Your task to perform on an android device: Go to notification settings Image 0: 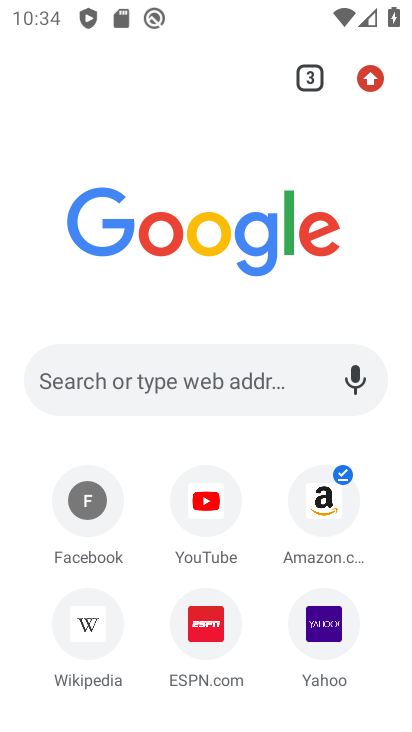
Step 0: press home button
Your task to perform on an android device: Go to notification settings Image 1: 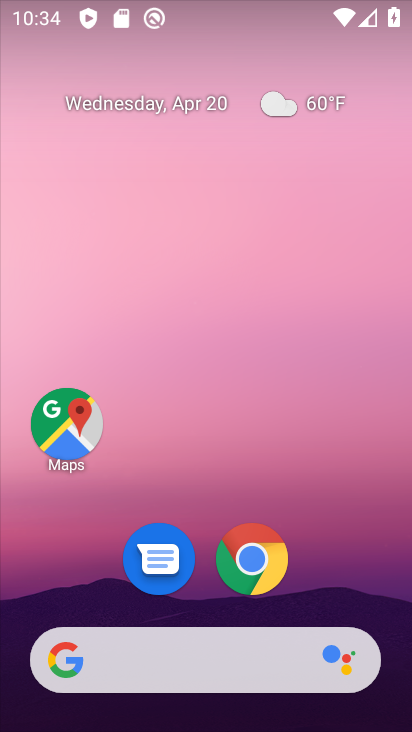
Step 1: drag from (213, 655) to (213, 77)
Your task to perform on an android device: Go to notification settings Image 2: 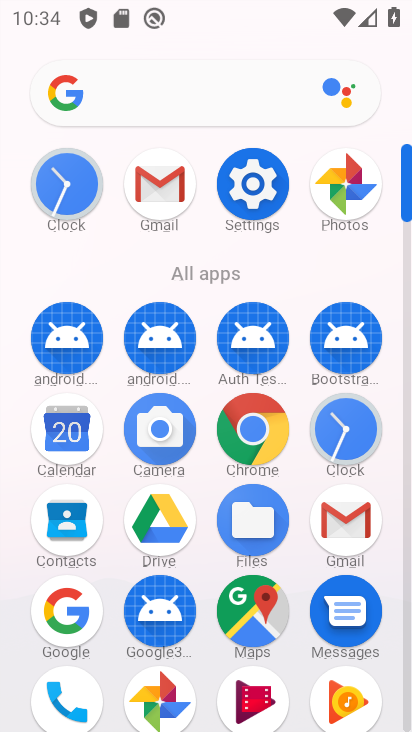
Step 2: click (251, 189)
Your task to perform on an android device: Go to notification settings Image 3: 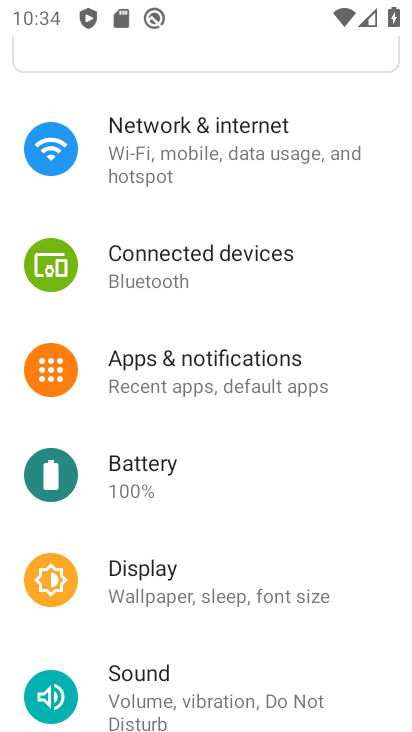
Step 3: click (172, 372)
Your task to perform on an android device: Go to notification settings Image 4: 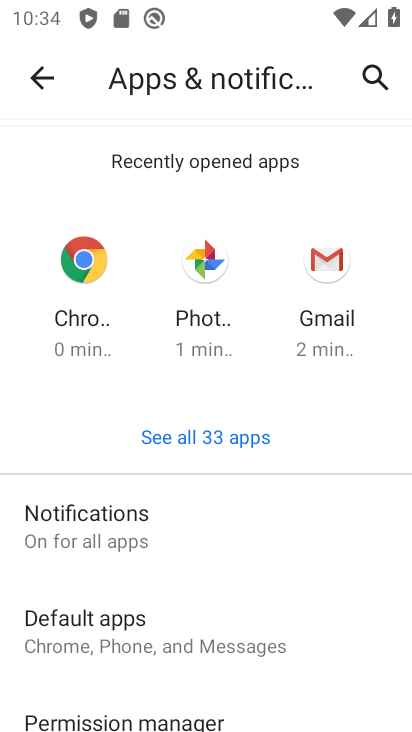
Step 4: click (85, 538)
Your task to perform on an android device: Go to notification settings Image 5: 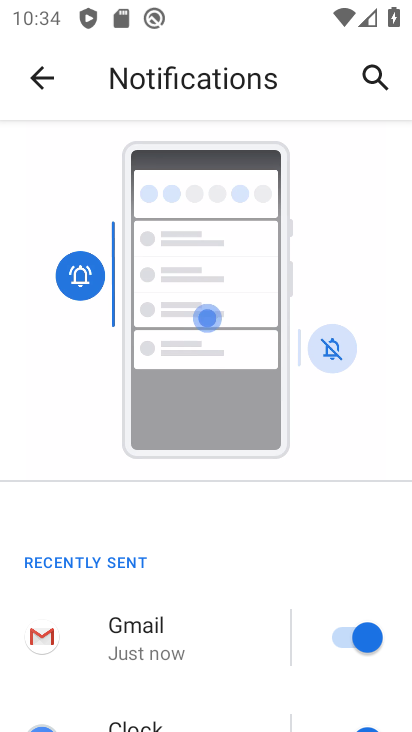
Step 5: task complete